Your task to perform on an android device: Search for flights from Zurich to Buenos aires Image 0: 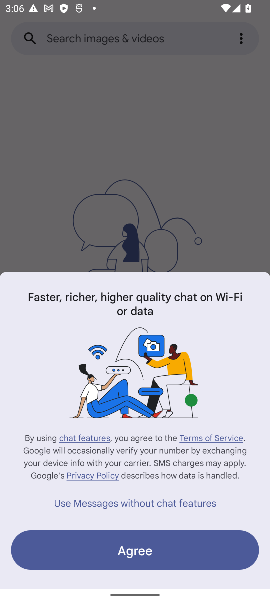
Step 0: press home button
Your task to perform on an android device: Search for flights from Zurich to Buenos aires Image 1: 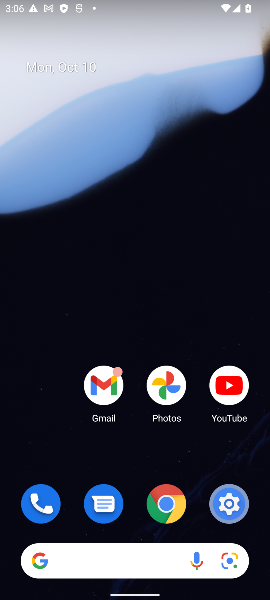
Step 1: drag from (93, 470) to (221, 98)
Your task to perform on an android device: Search for flights from Zurich to Buenos aires Image 2: 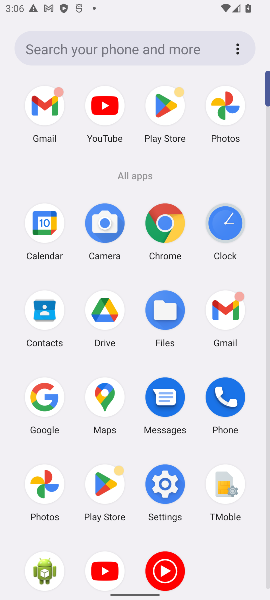
Step 2: click (155, 226)
Your task to perform on an android device: Search for flights from Zurich to Buenos aires Image 3: 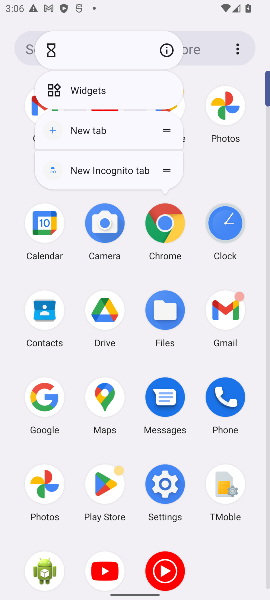
Step 3: click (155, 226)
Your task to perform on an android device: Search for flights from Zurich to Buenos aires Image 4: 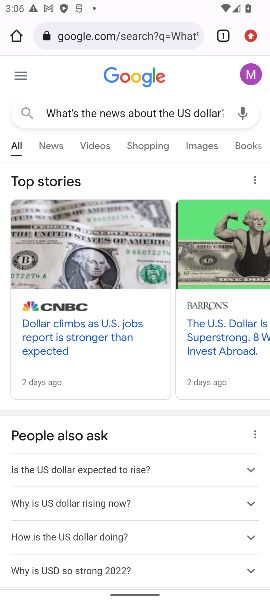
Step 4: click (137, 35)
Your task to perform on an android device: Search for flights from Zurich to Buenos aires Image 5: 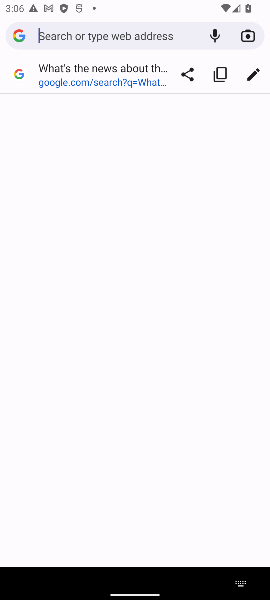
Step 5: type " flights from Zurich to Buenos aires"
Your task to perform on an android device: Search for flights from Zurich to Buenos aires Image 6: 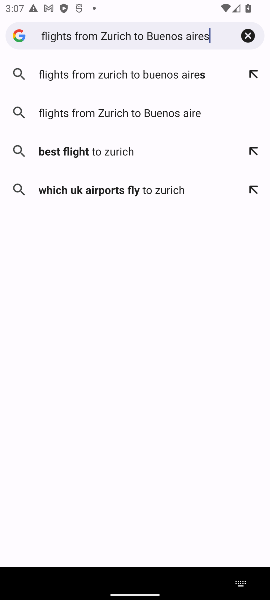
Step 6: press enter
Your task to perform on an android device: Search for flights from Zurich to Buenos aires Image 7: 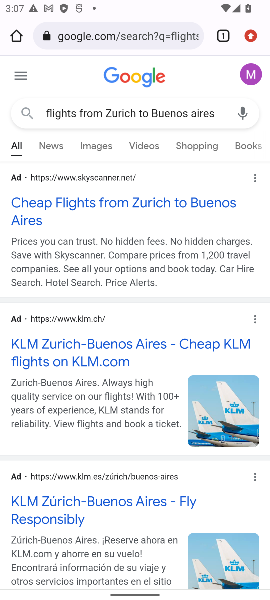
Step 7: click (46, 201)
Your task to perform on an android device: Search for flights from Zurich to Buenos aires Image 8: 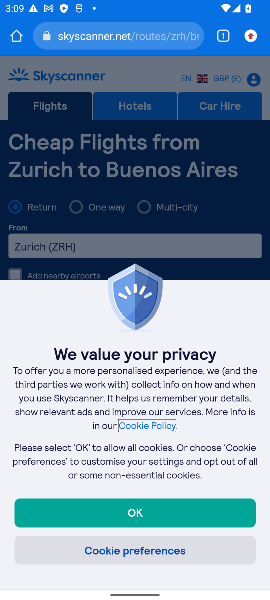
Step 8: task complete